Your task to perform on an android device: delete browsing data in the chrome app Image 0: 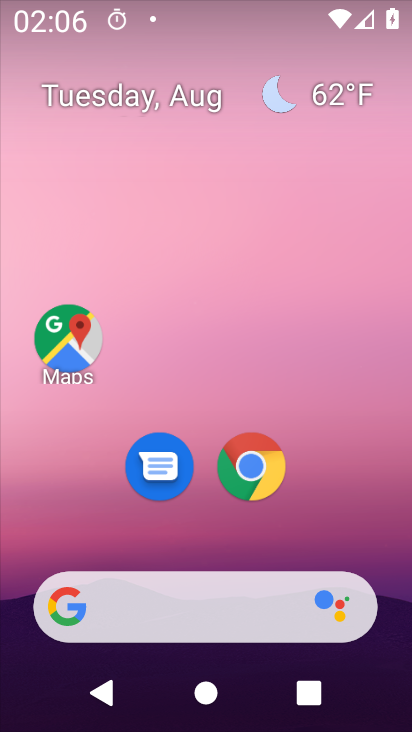
Step 0: press home button
Your task to perform on an android device: delete browsing data in the chrome app Image 1: 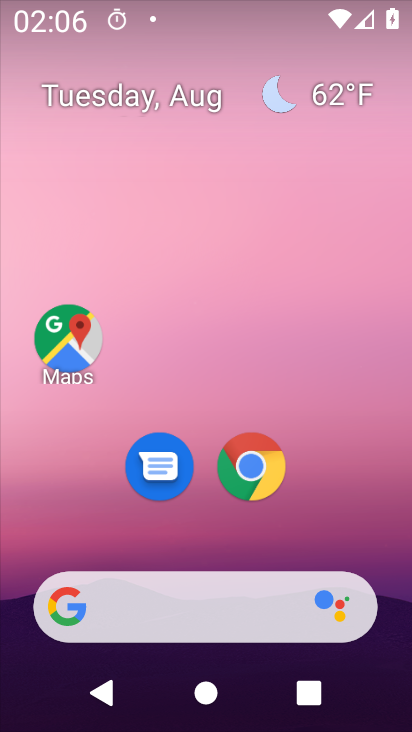
Step 1: drag from (341, 534) to (350, 105)
Your task to perform on an android device: delete browsing data in the chrome app Image 2: 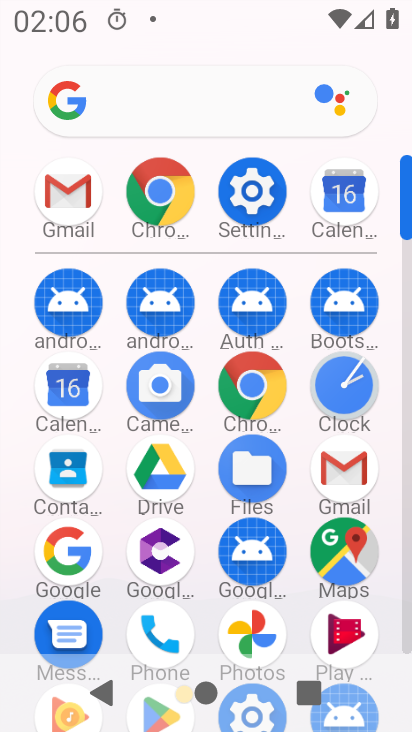
Step 2: click (252, 375)
Your task to perform on an android device: delete browsing data in the chrome app Image 3: 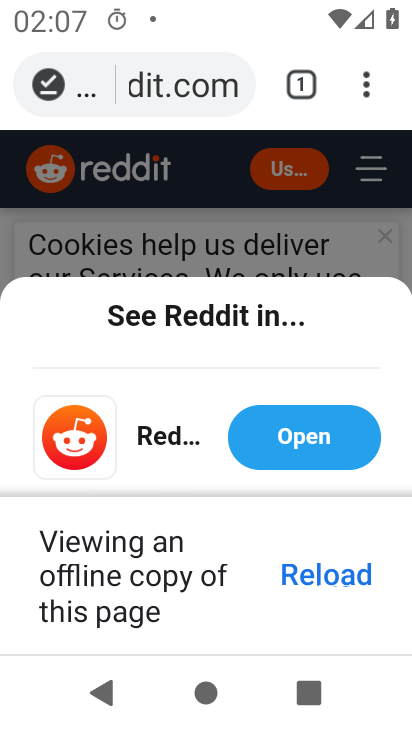
Step 3: drag from (136, 325) to (398, 385)
Your task to perform on an android device: delete browsing data in the chrome app Image 4: 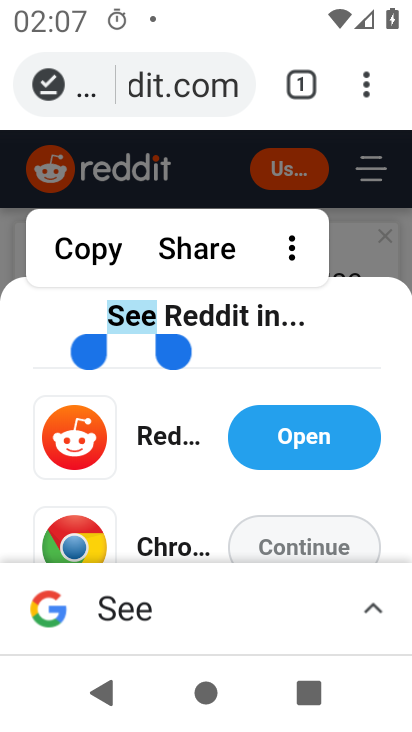
Step 4: click (365, 88)
Your task to perform on an android device: delete browsing data in the chrome app Image 5: 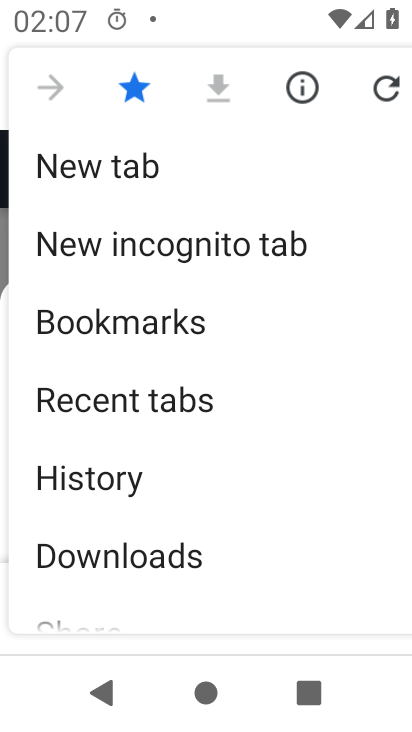
Step 5: drag from (339, 325) to (350, 233)
Your task to perform on an android device: delete browsing data in the chrome app Image 6: 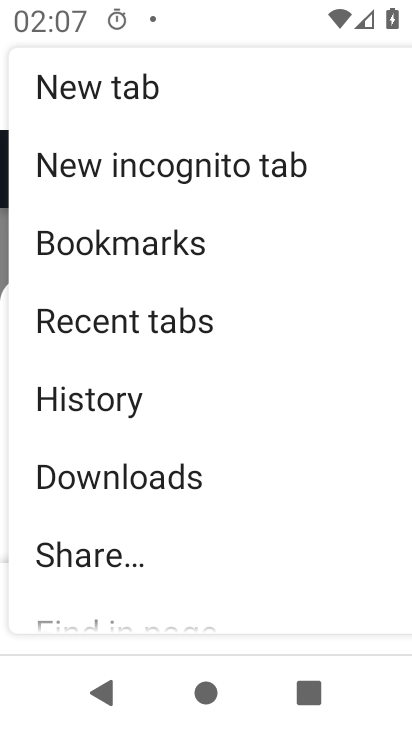
Step 6: drag from (347, 303) to (358, 229)
Your task to perform on an android device: delete browsing data in the chrome app Image 7: 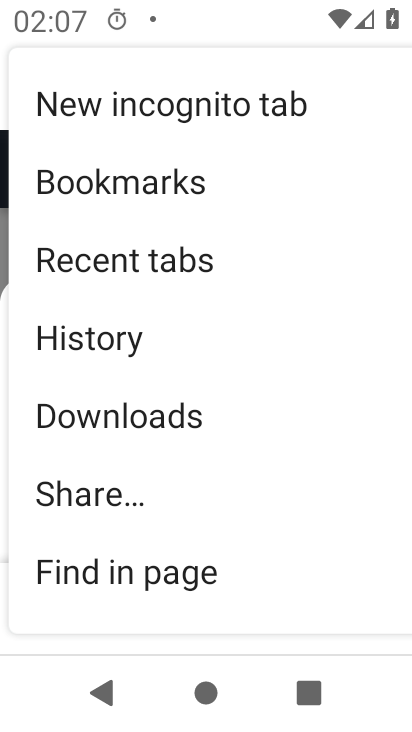
Step 7: drag from (342, 309) to (349, 240)
Your task to perform on an android device: delete browsing data in the chrome app Image 8: 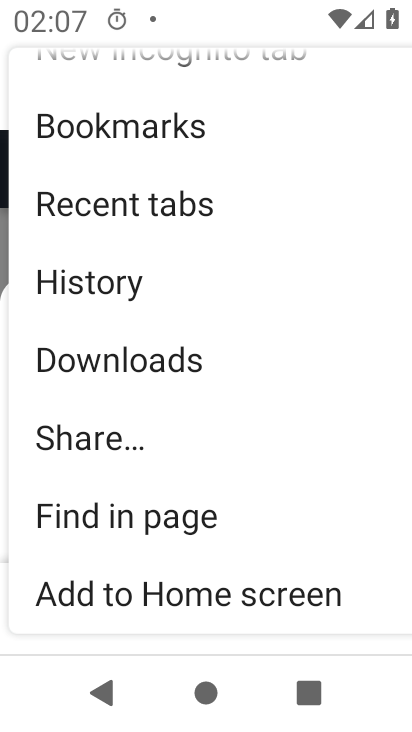
Step 8: drag from (350, 336) to (353, 258)
Your task to perform on an android device: delete browsing data in the chrome app Image 9: 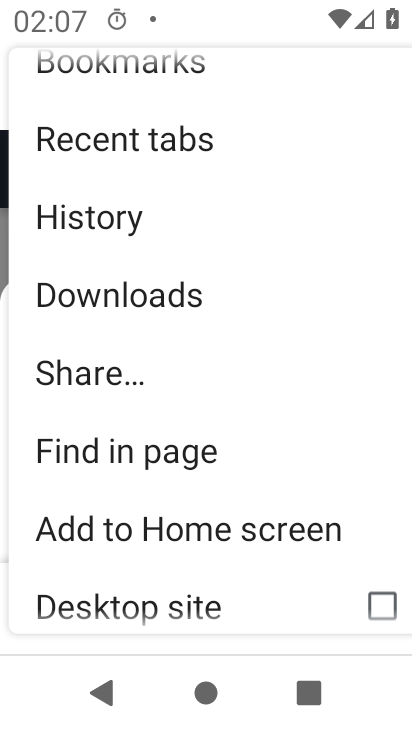
Step 9: drag from (337, 371) to (343, 278)
Your task to perform on an android device: delete browsing data in the chrome app Image 10: 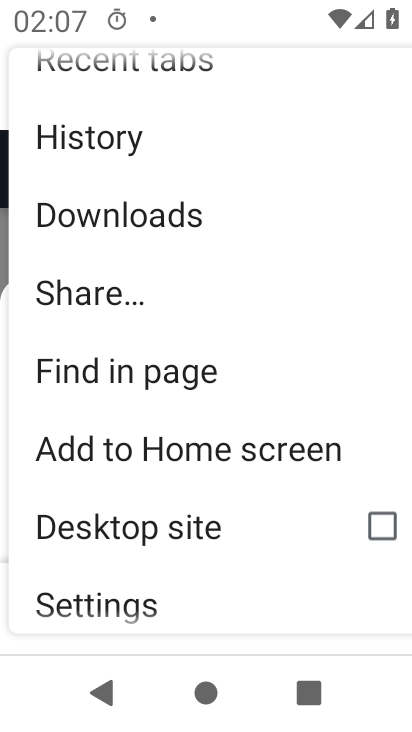
Step 10: drag from (334, 383) to (333, 290)
Your task to perform on an android device: delete browsing data in the chrome app Image 11: 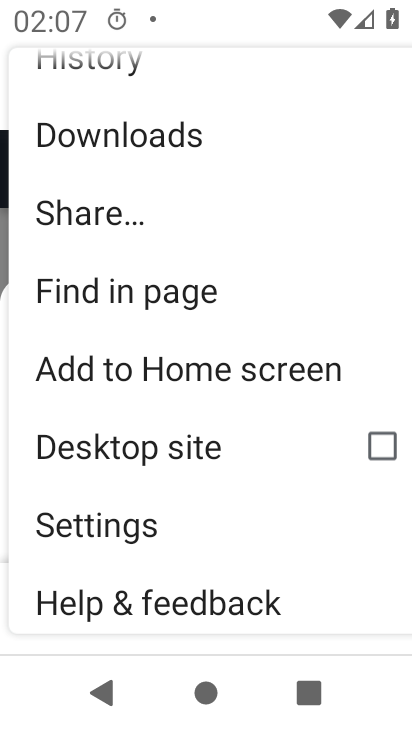
Step 11: drag from (313, 406) to (326, 301)
Your task to perform on an android device: delete browsing data in the chrome app Image 12: 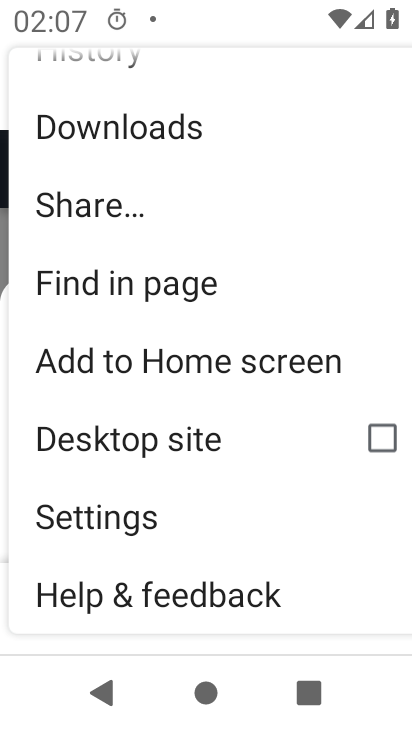
Step 12: click (250, 517)
Your task to perform on an android device: delete browsing data in the chrome app Image 13: 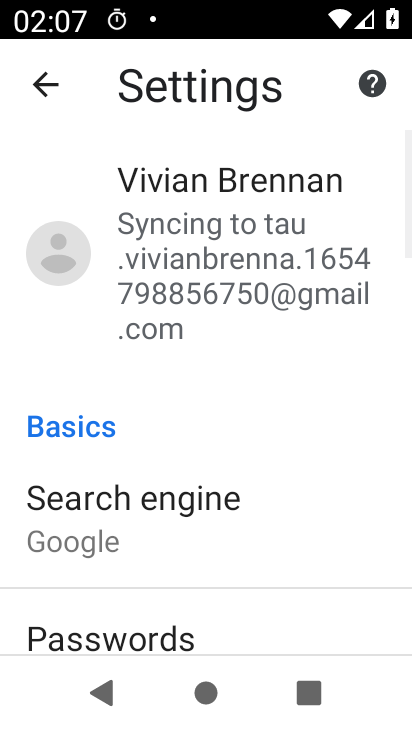
Step 13: drag from (293, 531) to (308, 419)
Your task to perform on an android device: delete browsing data in the chrome app Image 14: 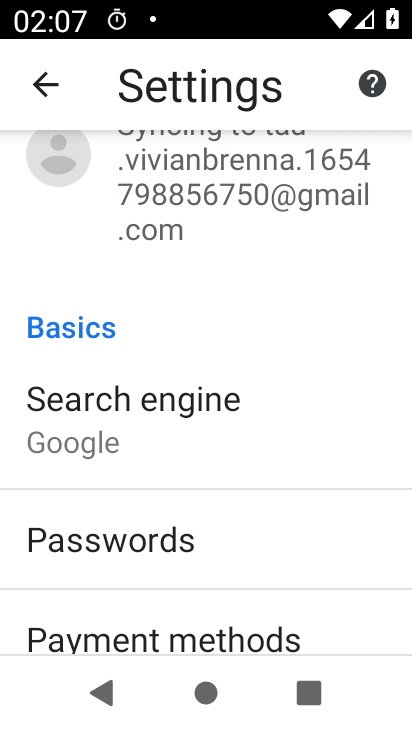
Step 14: drag from (313, 503) to (316, 425)
Your task to perform on an android device: delete browsing data in the chrome app Image 15: 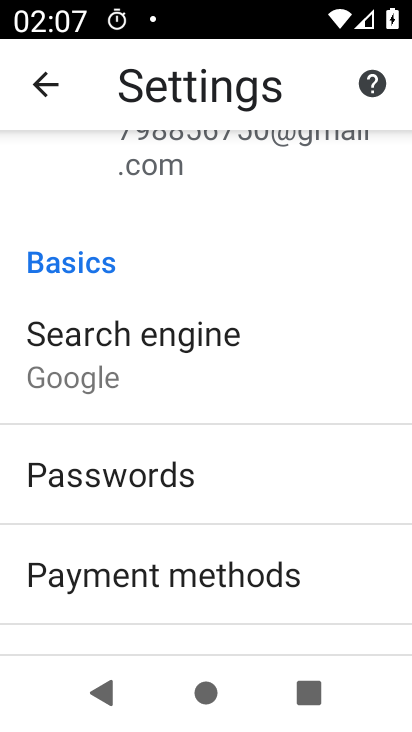
Step 15: drag from (324, 514) to (331, 435)
Your task to perform on an android device: delete browsing data in the chrome app Image 16: 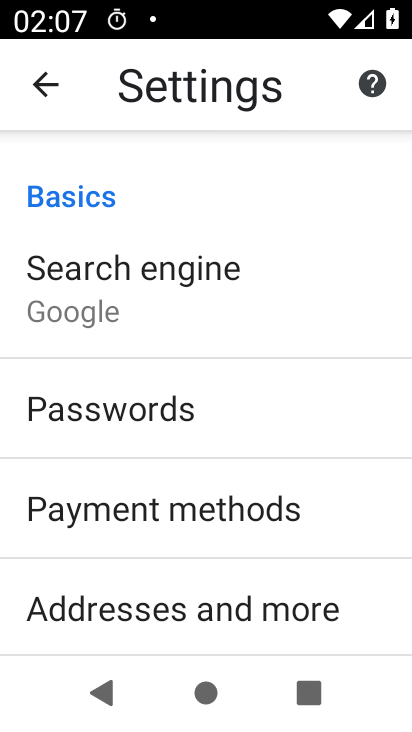
Step 16: drag from (337, 538) to (338, 450)
Your task to perform on an android device: delete browsing data in the chrome app Image 17: 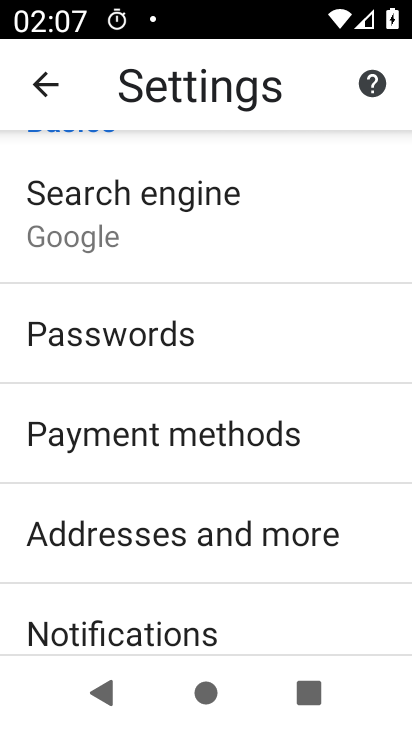
Step 17: drag from (336, 589) to (344, 452)
Your task to perform on an android device: delete browsing data in the chrome app Image 18: 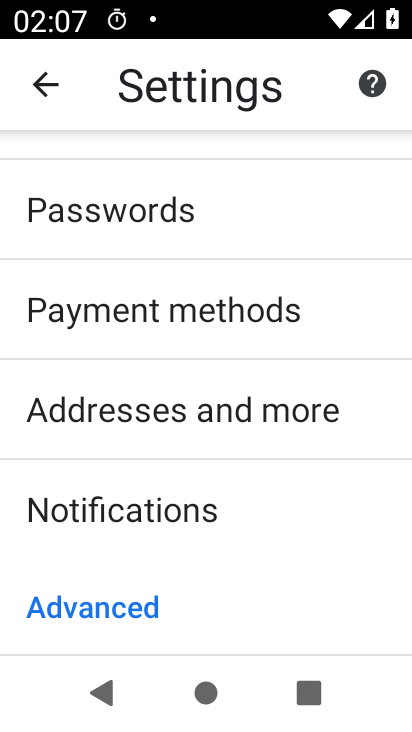
Step 18: drag from (320, 561) to (346, 423)
Your task to perform on an android device: delete browsing data in the chrome app Image 19: 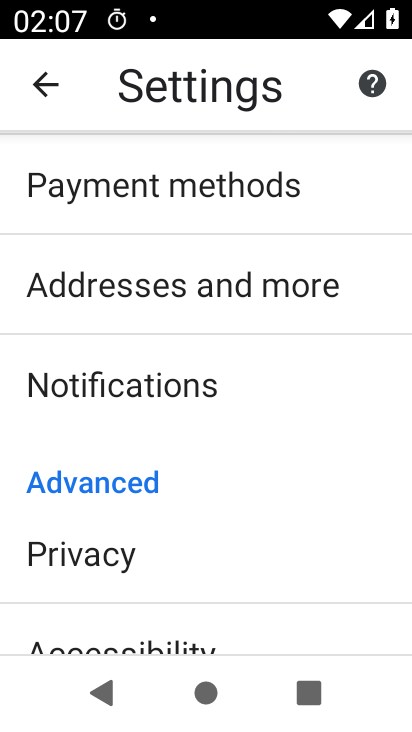
Step 19: click (238, 573)
Your task to perform on an android device: delete browsing data in the chrome app Image 20: 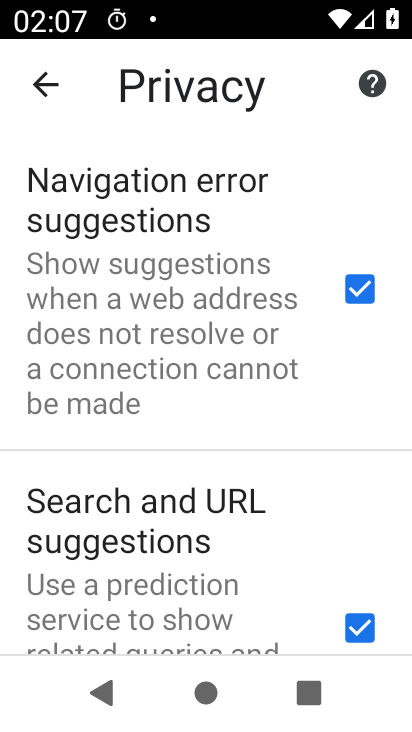
Step 20: drag from (297, 485) to (312, 381)
Your task to perform on an android device: delete browsing data in the chrome app Image 21: 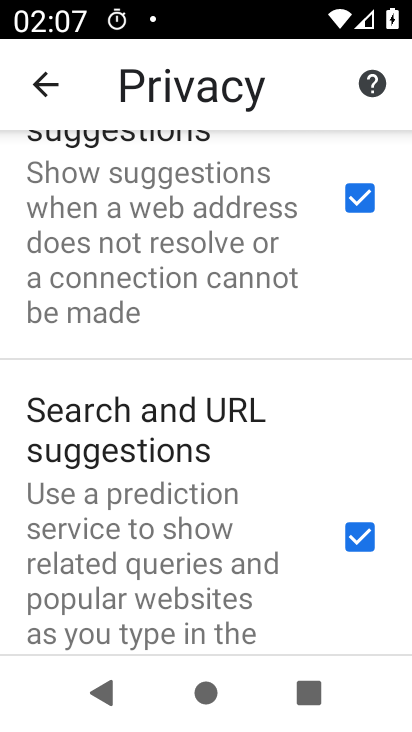
Step 21: drag from (300, 493) to (298, 354)
Your task to perform on an android device: delete browsing data in the chrome app Image 22: 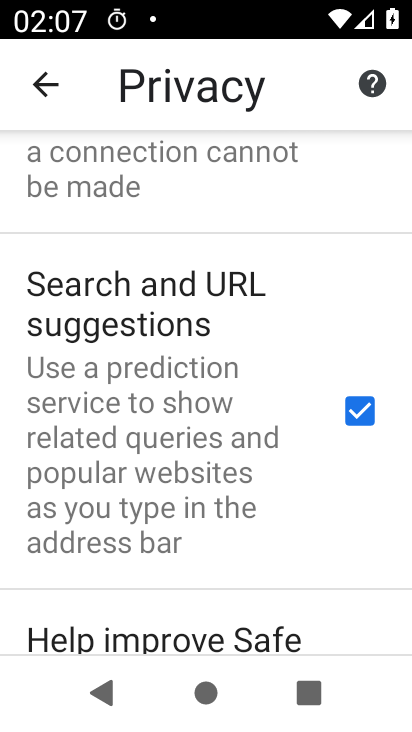
Step 22: drag from (290, 521) to (310, 348)
Your task to perform on an android device: delete browsing data in the chrome app Image 23: 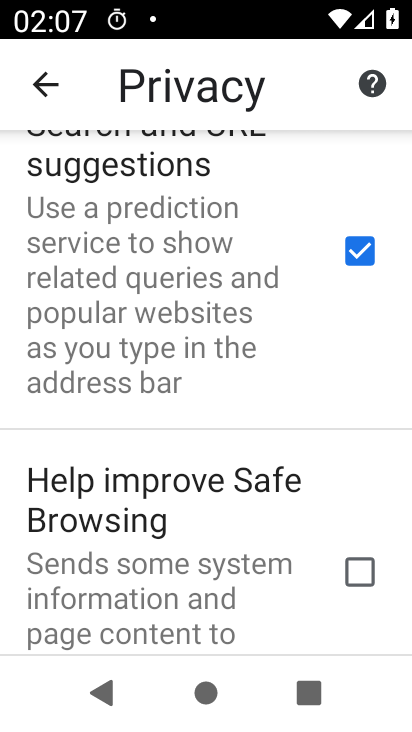
Step 23: drag from (280, 513) to (286, 326)
Your task to perform on an android device: delete browsing data in the chrome app Image 24: 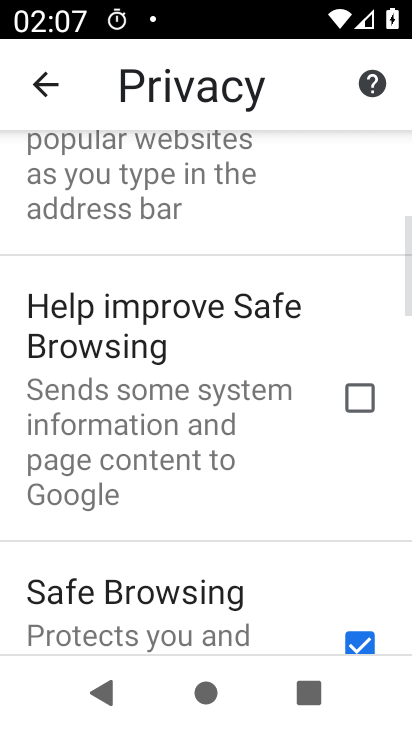
Step 24: drag from (266, 536) to (278, 354)
Your task to perform on an android device: delete browsing data in the chrome app Image 25: 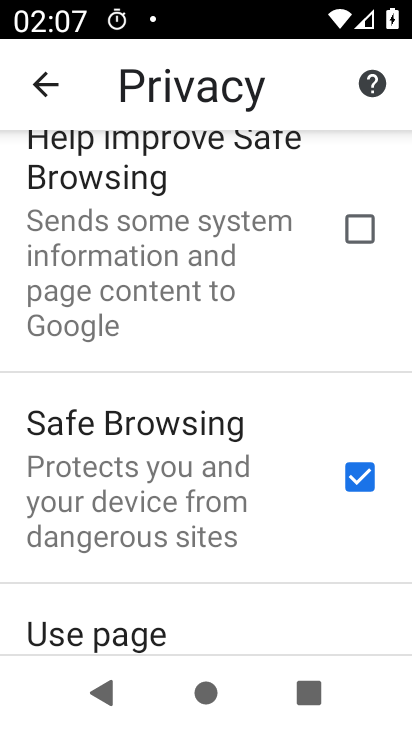
Step 25: drag from (270, 568) to (265, 365)
Your task to perform on an android device: delete browsing data in the chrome app Image 26: 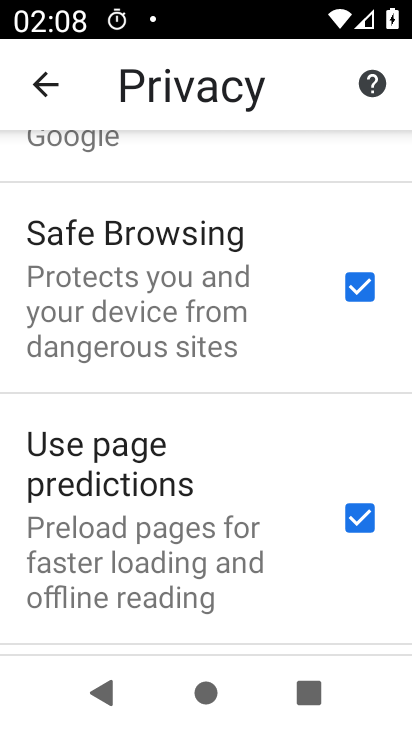
Step 26: drag from (263, 559) to (263, 385)
Your task to perform on an android device: delete browsing data in the chrome app Image 27: 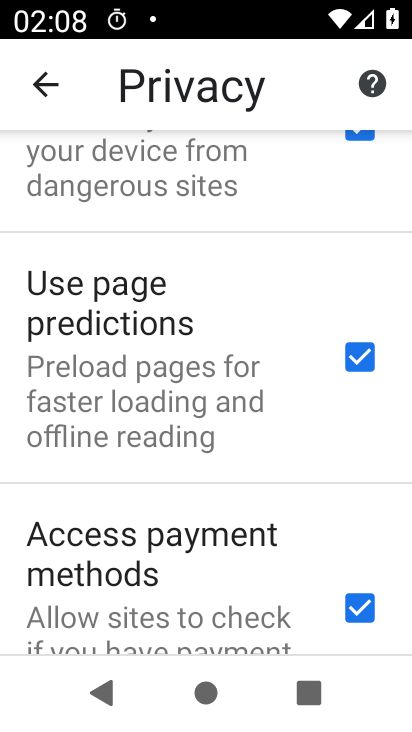
Step 27: drag from (266, 590) to (261, 399)
Your task to perform on an android device: delete browsing data in the chrome app Image 28: 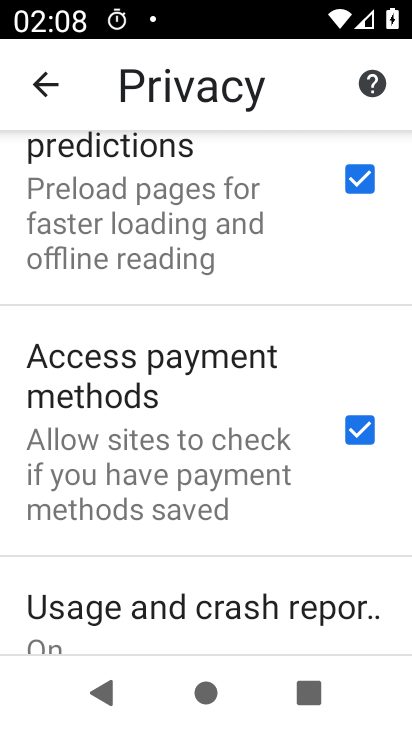
Step 28: drag from (258, 599) to (261, 446)
Your task to perform on an android device: delete browsing data in the chrome app Image 29: 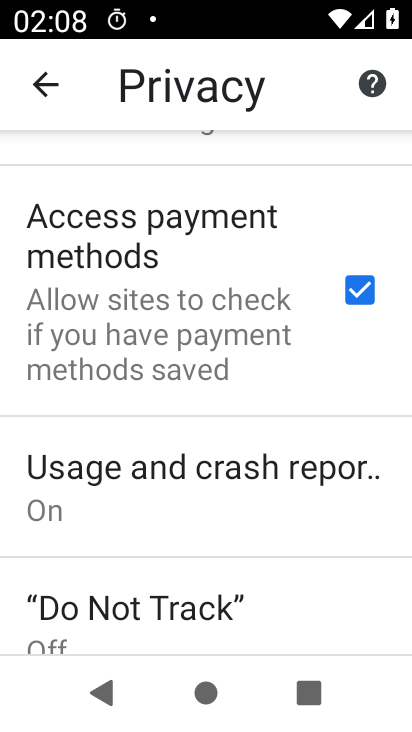
Step 29: drag from (264, 608) to (274, 433)
Your task to perform on an android device: delete browsing data in the chrome app Image 30: 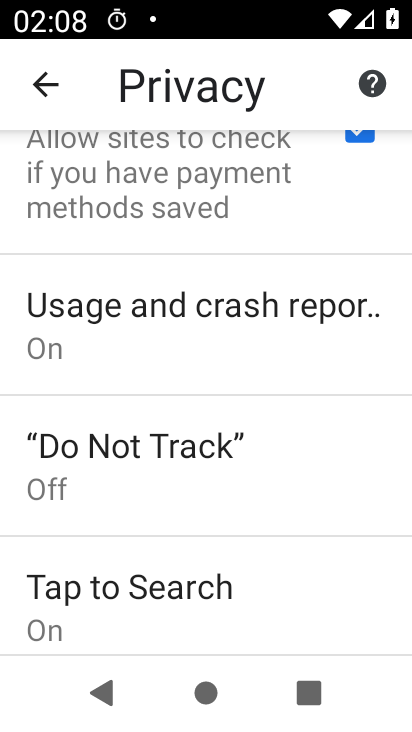
Step 30: drag from (258, 617) to (276, 417)
Your task to perform on an android device: delete browsing data in the chrome app Image 31: 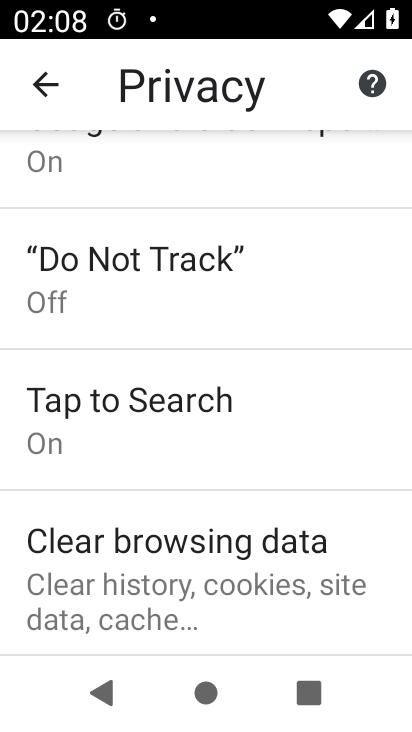
Step 31: click (254, 561)
Your task to perform on an android device: delete browsing data in the chrome app Image 32: 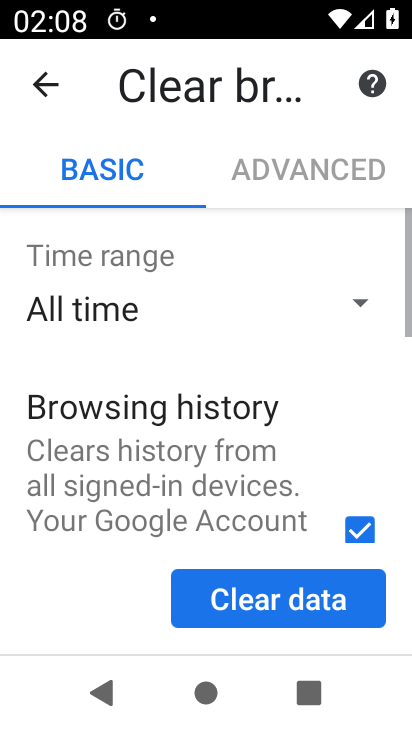
Step 32: click (251, 590)
Your task to perform on an android device: delete browsing data in the chrome app Image 33: 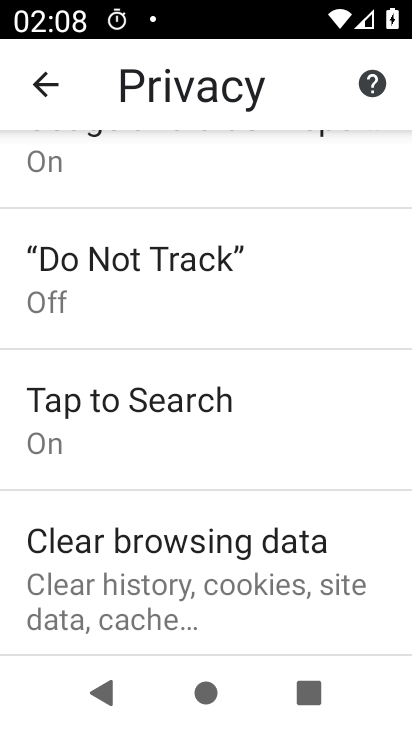
Step 33: task complete